Your task to perform on an android device: set an alarm Image 0: 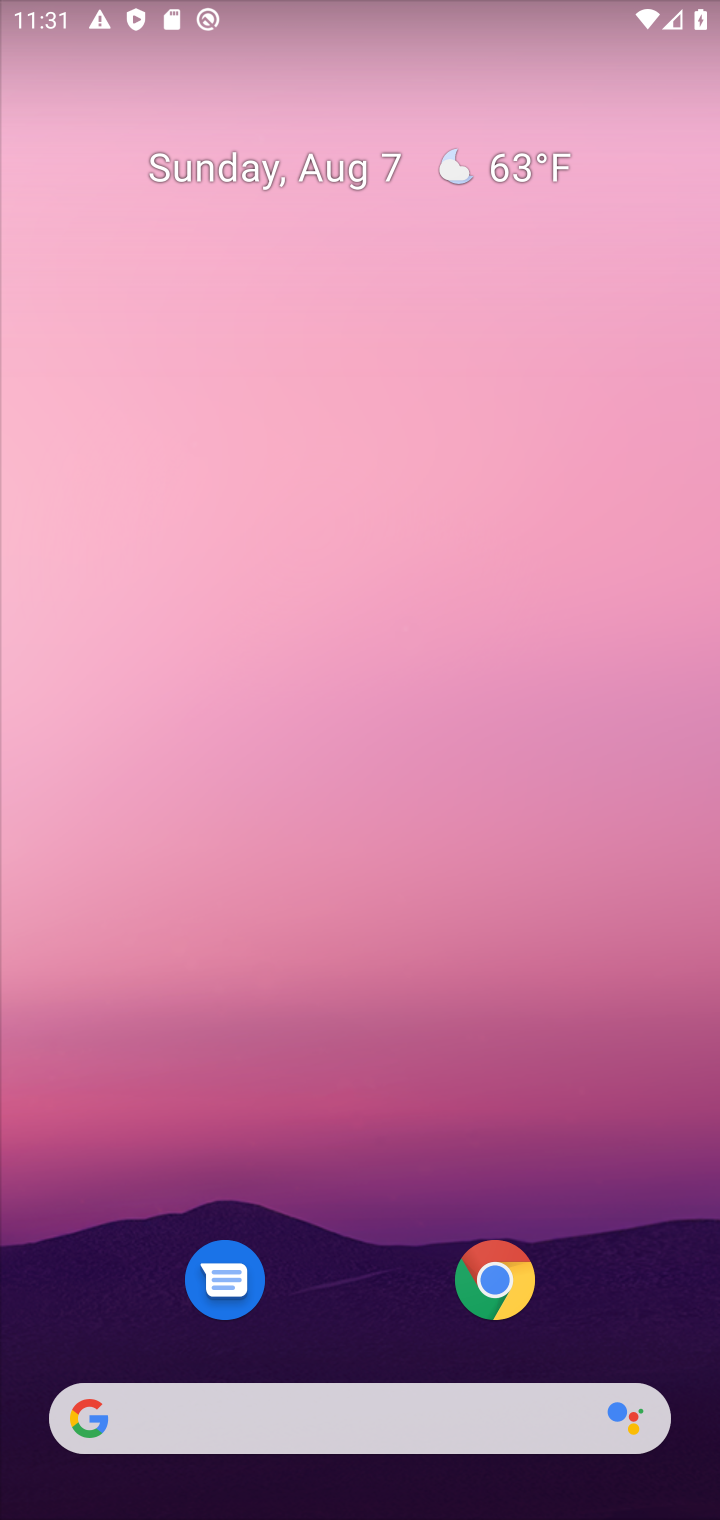
Step 0: drag from (373, 1358) to (290, 159)
Your task to perform on an android device: set an alarm Image 1: 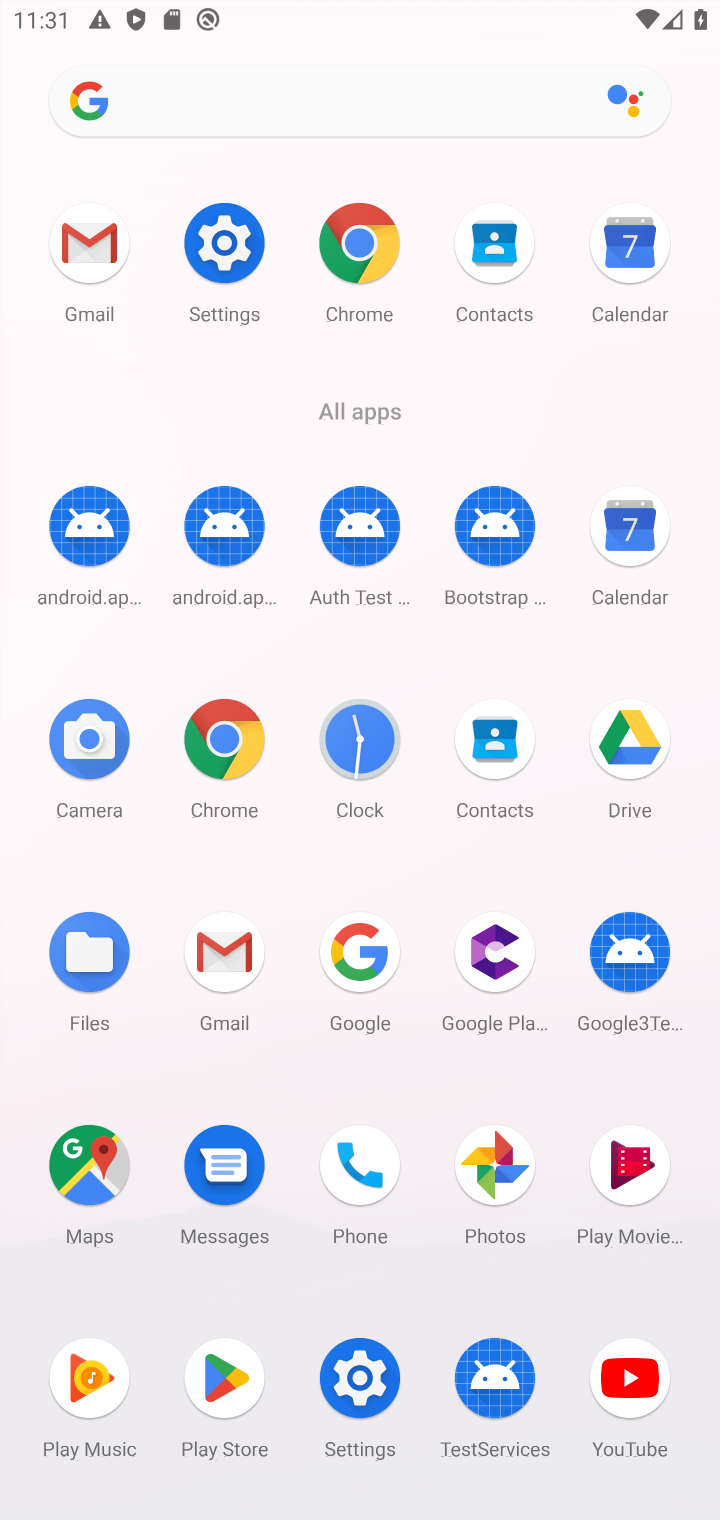
Step 1: click (352, 737)
Your task to perform on an android device: set an alarm Image 2: 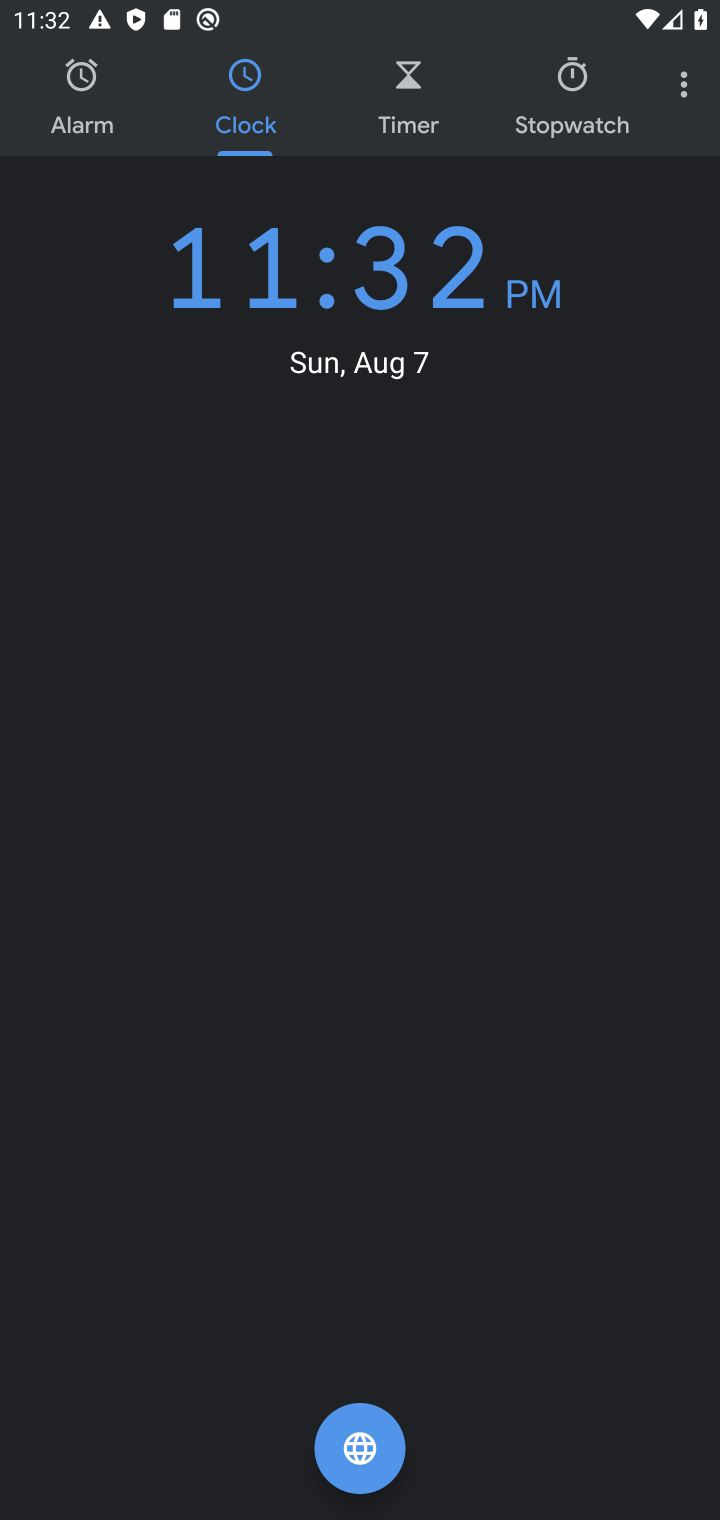
Step 2: click (85, 91)
Your task to perform on an android device: set an alarm Image 3: 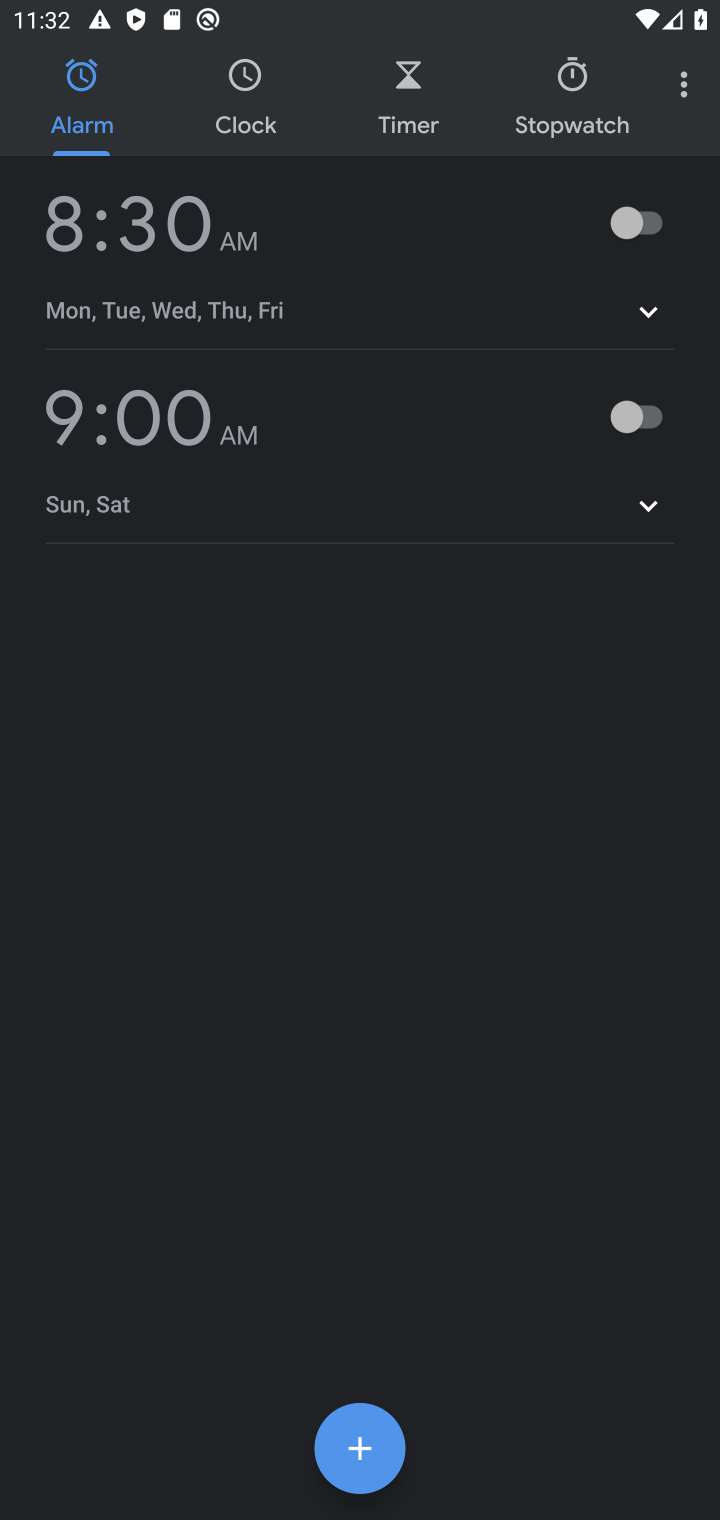
Step 3: click (354, 1451)
Your task to perform on an android device: set an alarm Image 4: 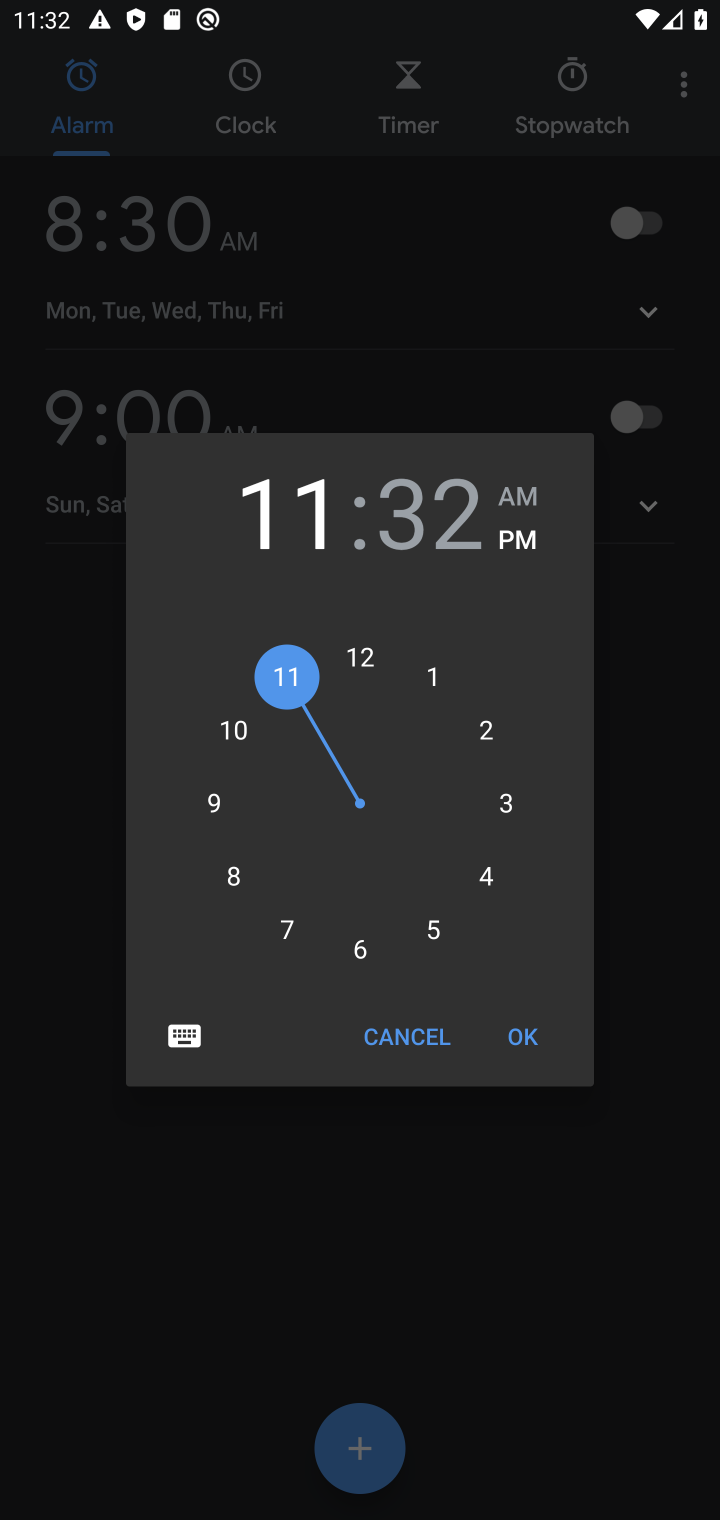
Step 4: click (436, 920)
Your task to perform on an android device: set an alarm Image 5: 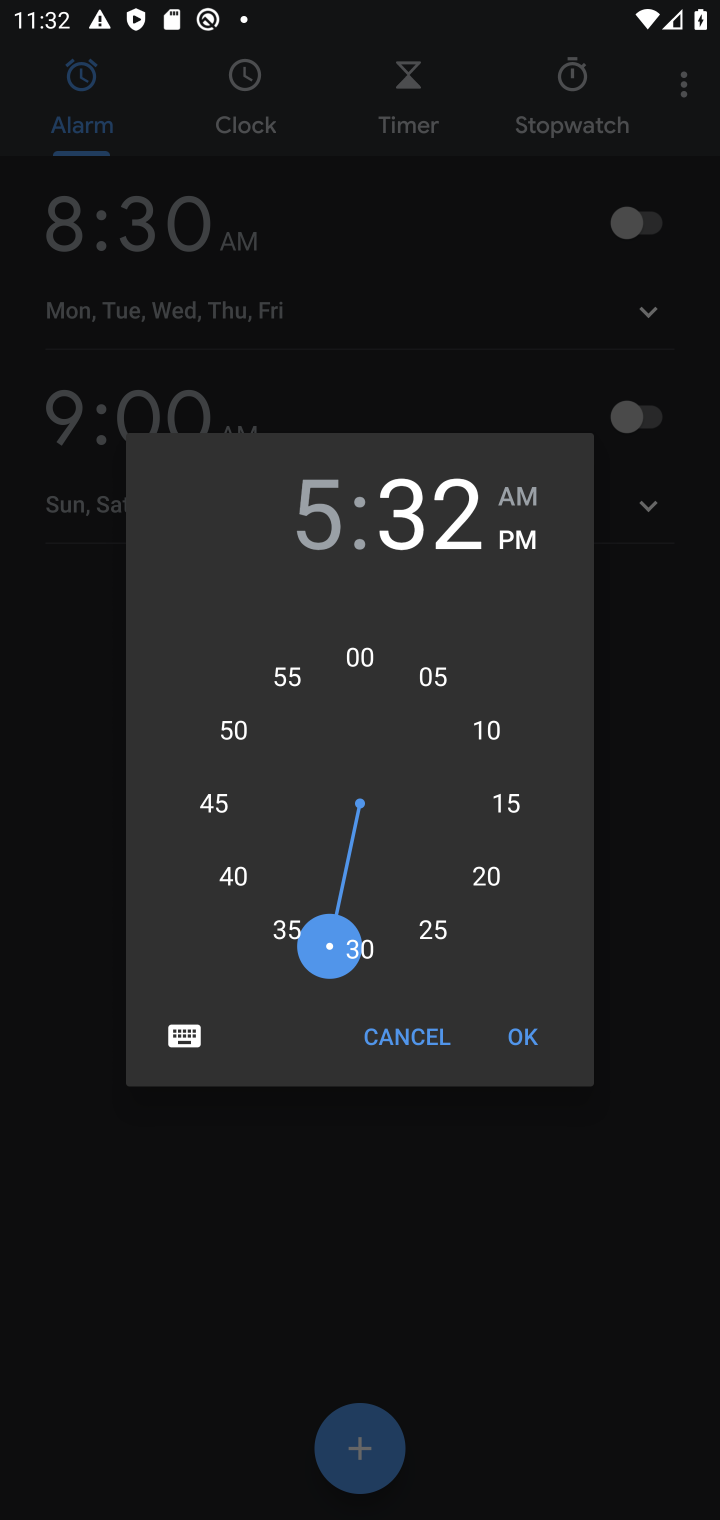
Step 5: click (517, 1043)
Your task to perform on an android device: set an alarm Image 6: 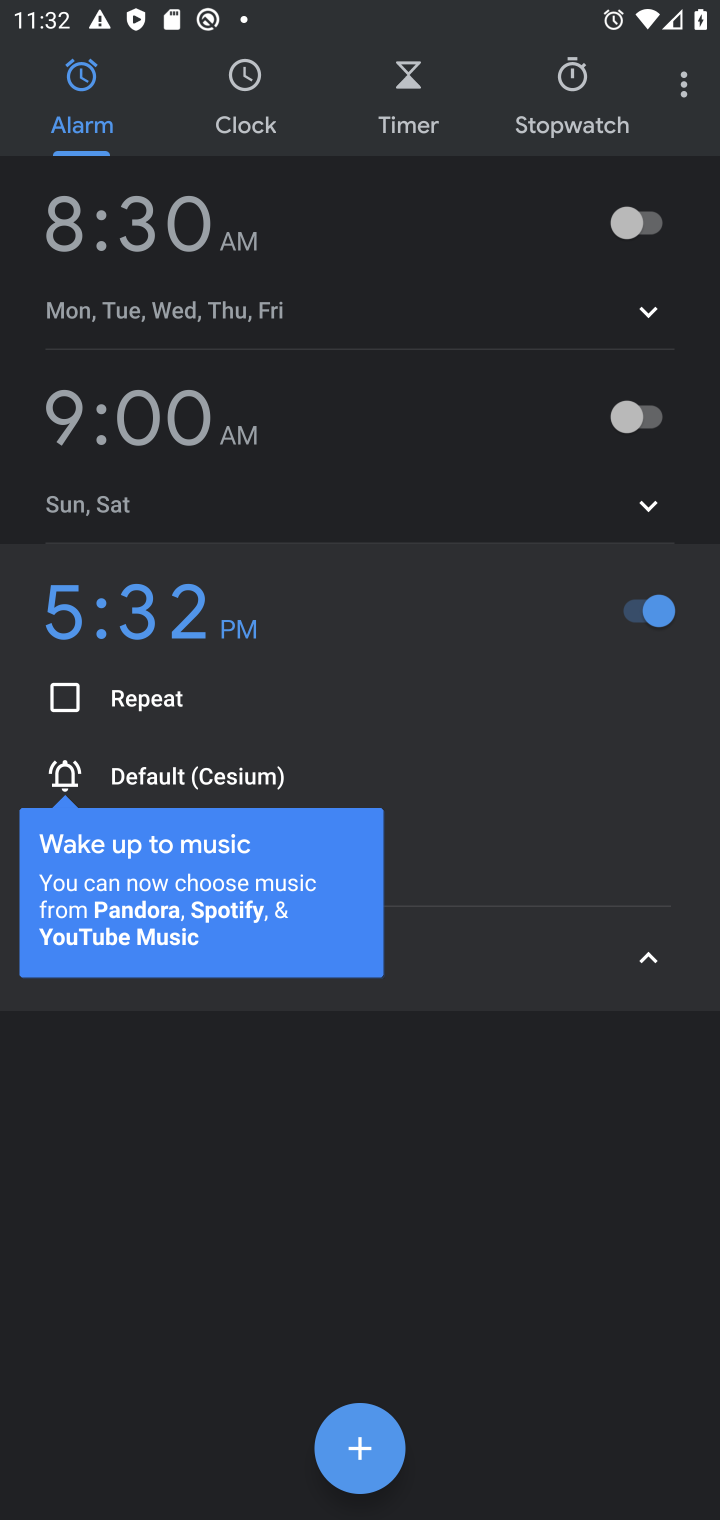
Step 6: task complete